Your task to perform on an android device: Go to CNN.com Image 0: 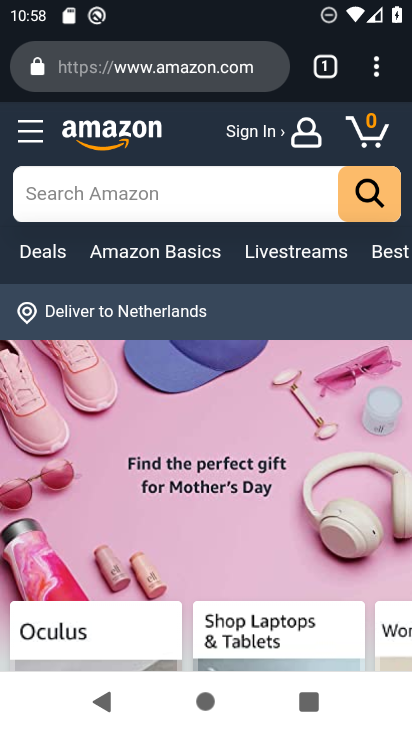
Step 0: press home button
Your task to perform on an android device: Go to CNN.com Image 1: 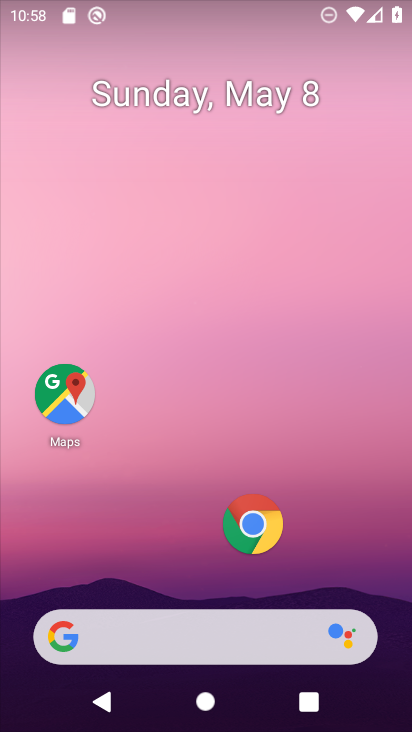
Step 1: click (226, 629)
Your task to perform on an android device: Go to CNN.com Image 2: 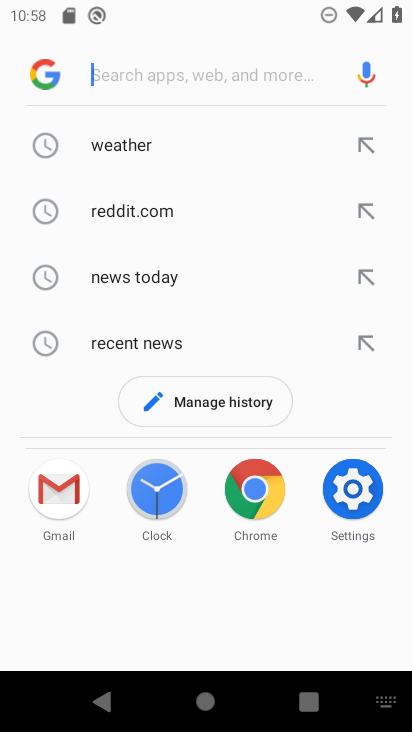
Step 2: type "cnn.com"
Your task to perform on an android device: Go to CNN.com Image 3: 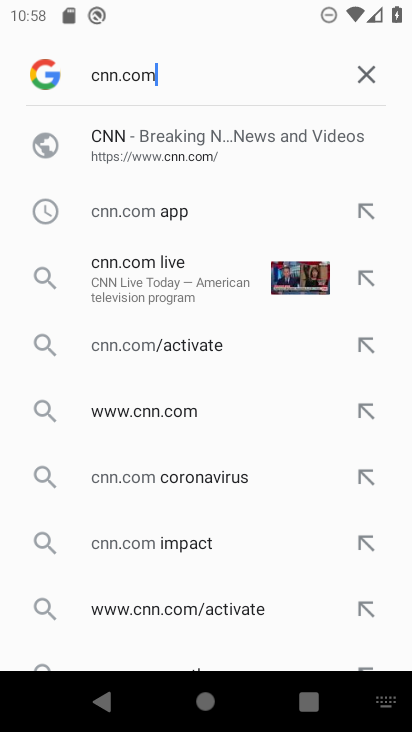
Step 3: click (146, 143)
Your task to perform on an android device: Go to CNN.com Image 4: 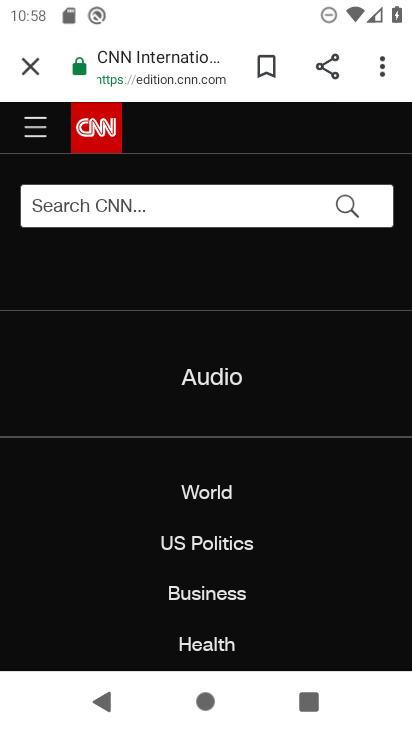
Step 4: task complete